Your task to perform on an android device: refresh tabs in the chrome app Image 0: 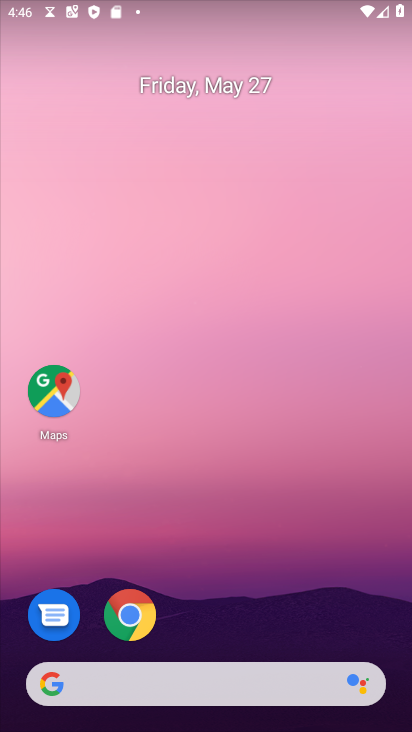
Step 0: click (134, 621)
Your task to perform on an android device: refresh tabs in the chrome app Image 1: 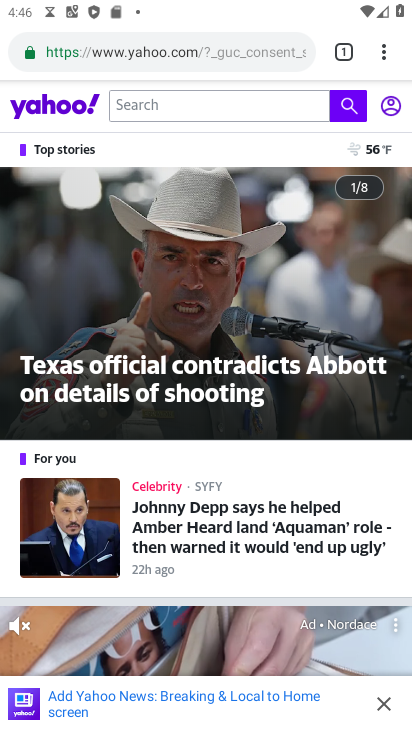
Step 1: click (386, 48)
Your task to perform on an android device: refresh tabs in the chrome app Image 2: 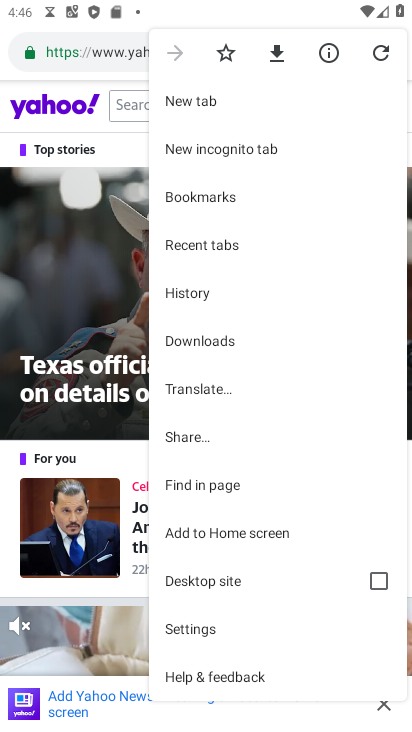
Step 2: click (387, 48)
Your task to perform on an android device: refresh tabs in the chrome app Image 3: 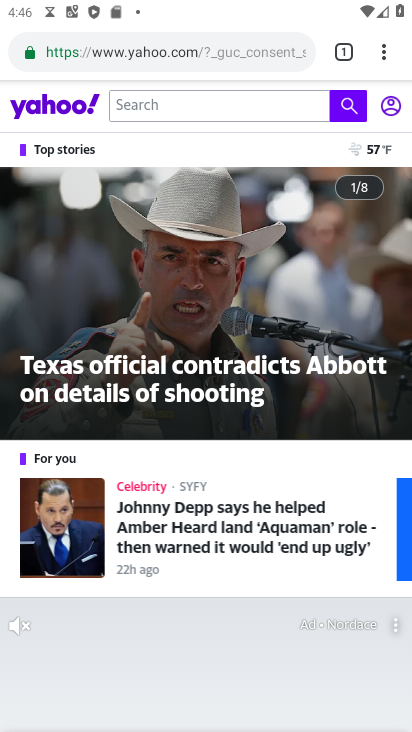
Step 3: task complete